Your task to perform on an android device: open a new tab in the chrome app Image 0: 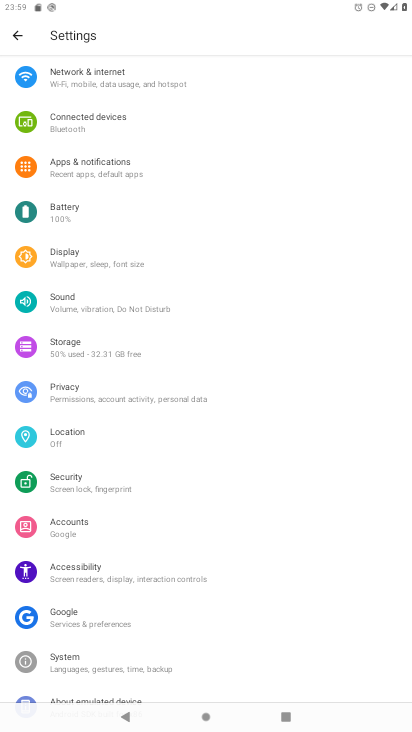
Step 0: drag from (182, 577) to (250, 210)
Your task to perform on an android device: open a new tab in the chrome app Image 1: 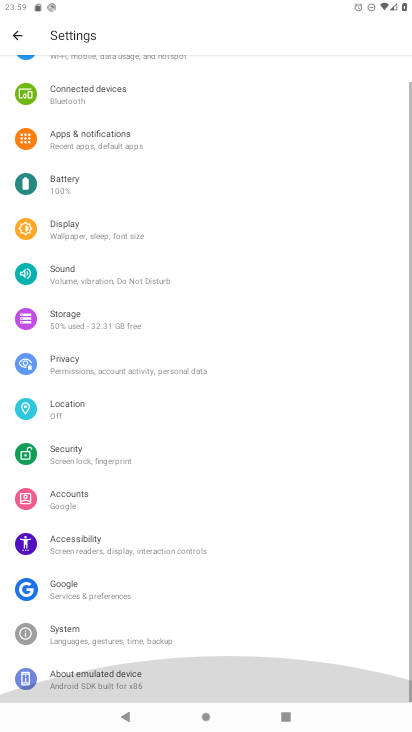
Step 1: drag from (229, 180) to (405, 489)
Your task to perform on an android device: open a new tab in the chrome app Image 2: 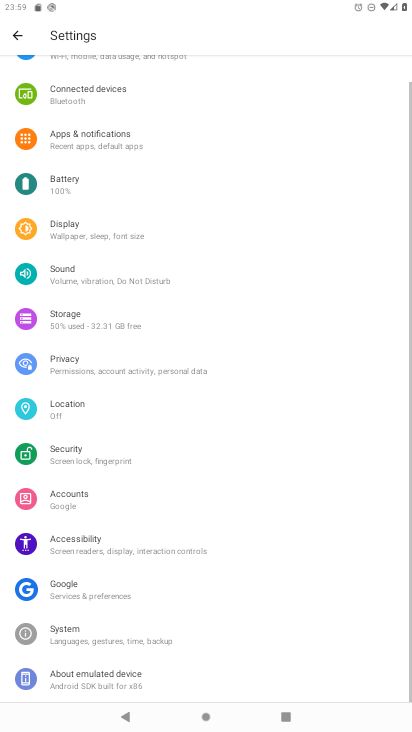
Step 2: press home button
Your task to perform on an android device: open a new tab in the chrome app Image 3: 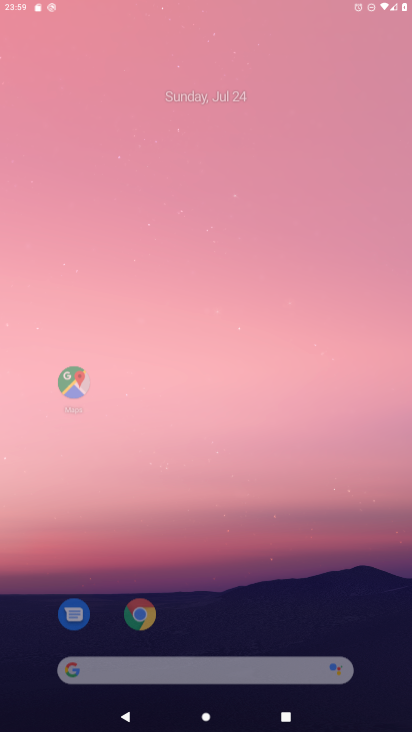
Step 3: drag from (212, 489) to (212, 322)
Your task to perform on an android device: open a new tab in the chrome app Image 4: 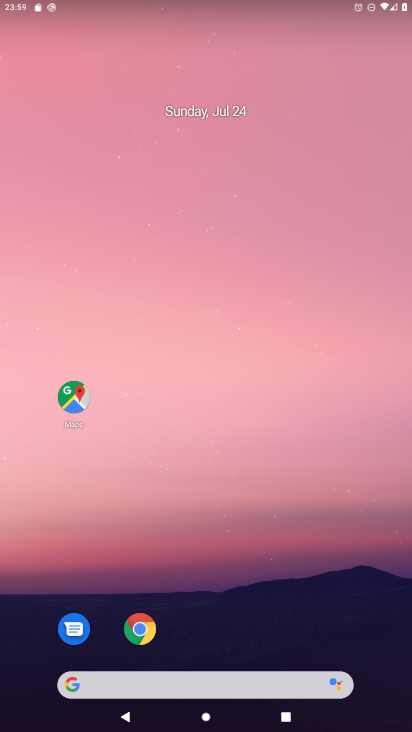
Step 4: drag from (192, 633) to (199, 0)
Your task to perform on an android device: open a new tab in the chrome app Image 5: 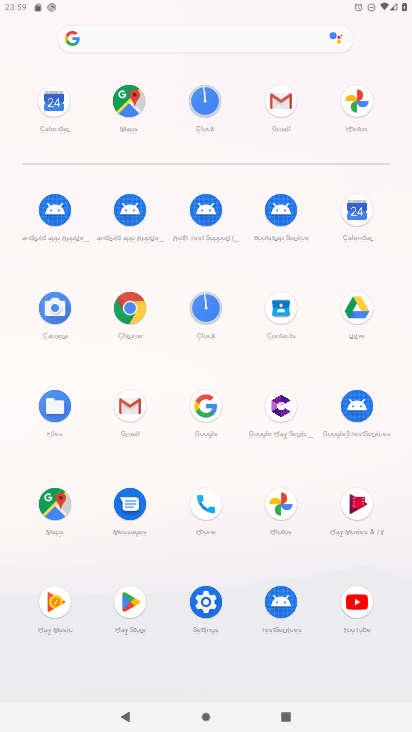
Step 5: click (127, 309)
Your task to perform on an android device: open a new tab in the chrome app Image 6: 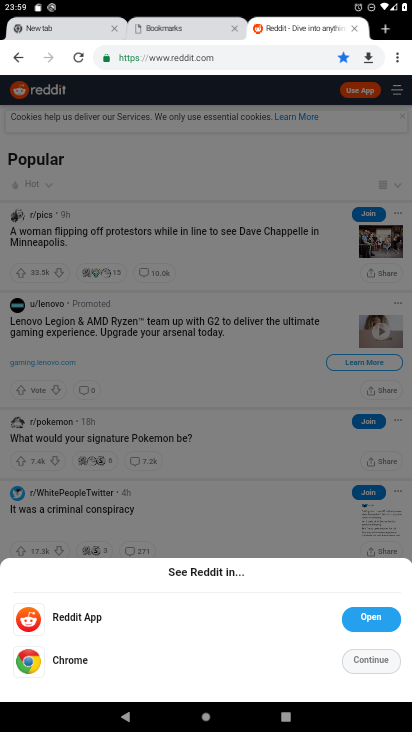
Step 6: task complete